Your task to perform on an android device: Go to sound settings Image 0: 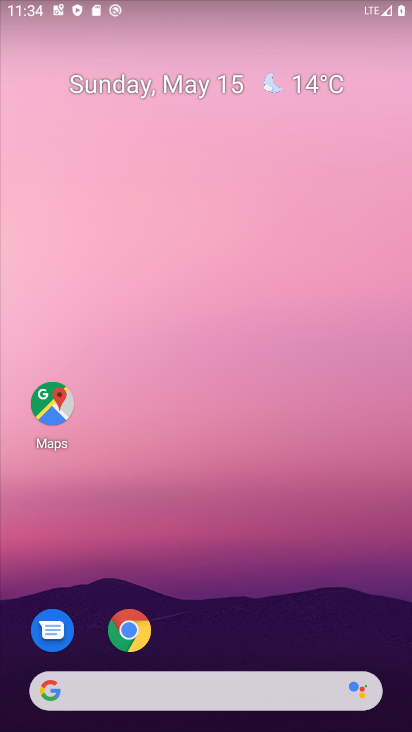
Step 0: press home button
Your task to perform on an android device: Go to sound settings Image 1: 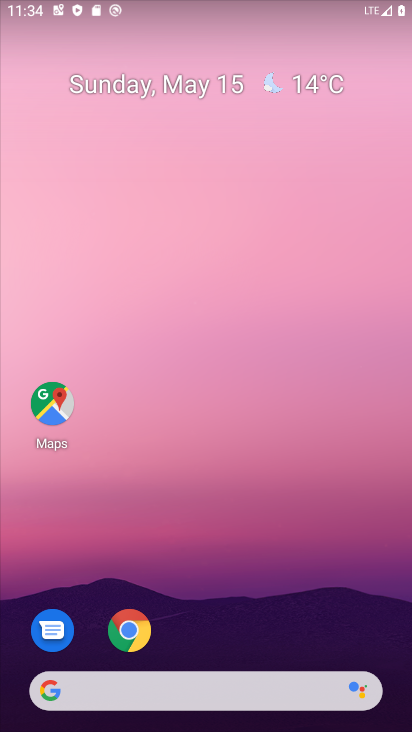
Step 1: click (125, 630)
Your task to perform on an android device: Go to sound settings Image 2: 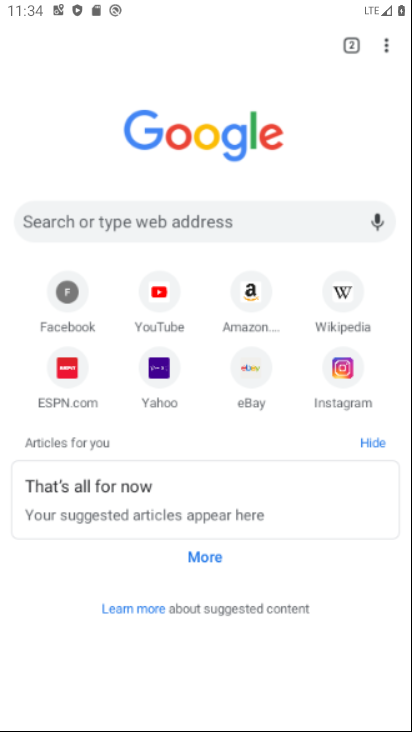
Step 2: drag from (49, 599) to (380, 173)
Your task to perform on an android device: Go to sound settings Image 3: 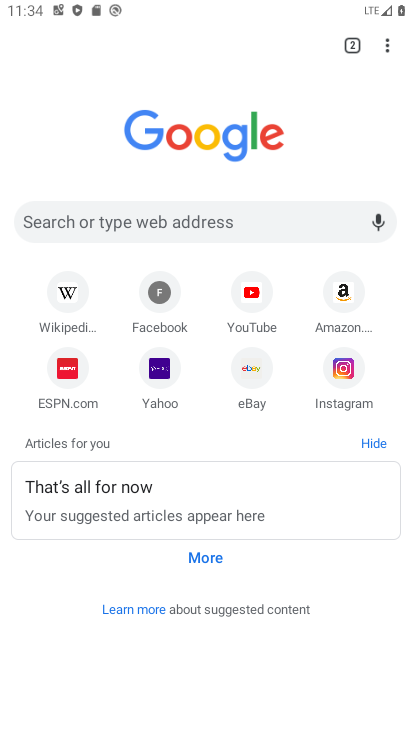
Step 3: press home button
Your task to perform on an android device: Go to sound settings Image 4: 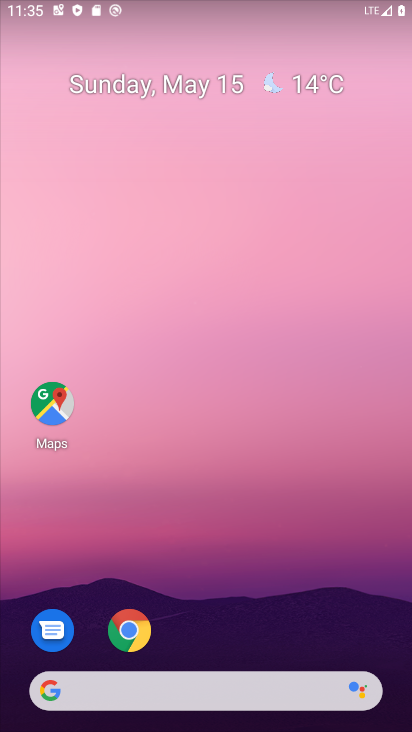
Step 4: drag from (85, 470) to (260, 162)
Your task to perform on an android device: Go to sound settings Image 5: 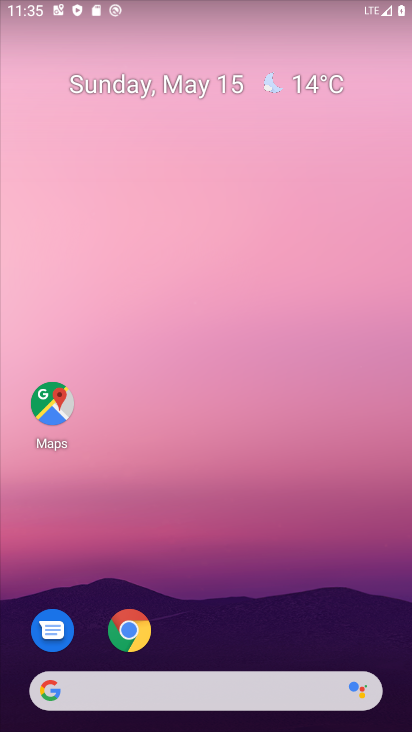
Step 5: drag from (60, 614) to (309, 178)
Your task to perform on an android device: Go to sound settings Image 6: 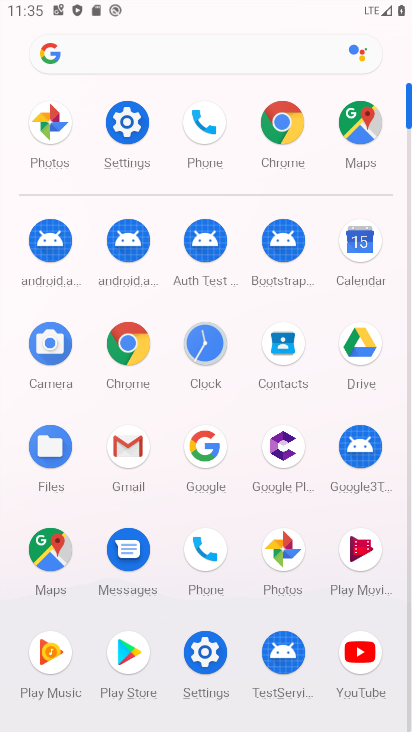
Step 6: click (124, 128)
Your task to perform on an android device: Go to sound settings Image 7: 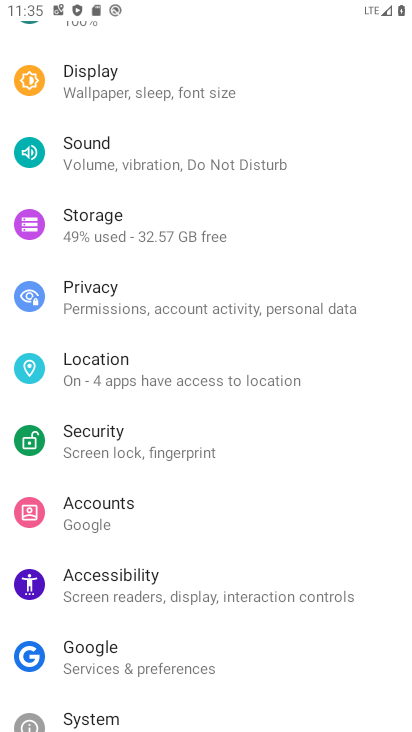
Step 7: click (116, 153)
Your task to perform on an android device: Go to sound settings Image 8: 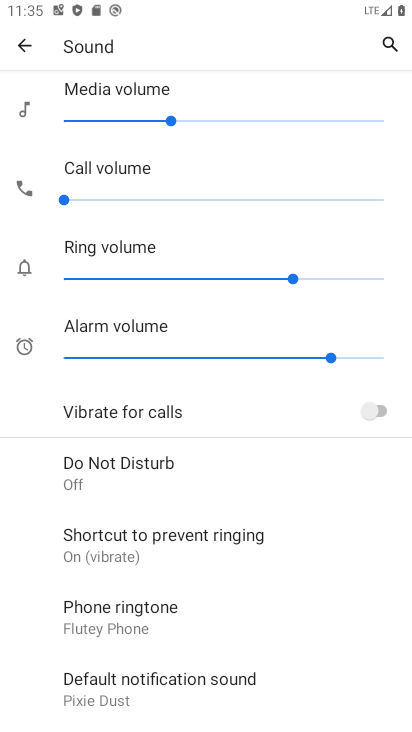
Step 8: task complete